Your task to perform on an android device: Go to CNN.com Image 0: 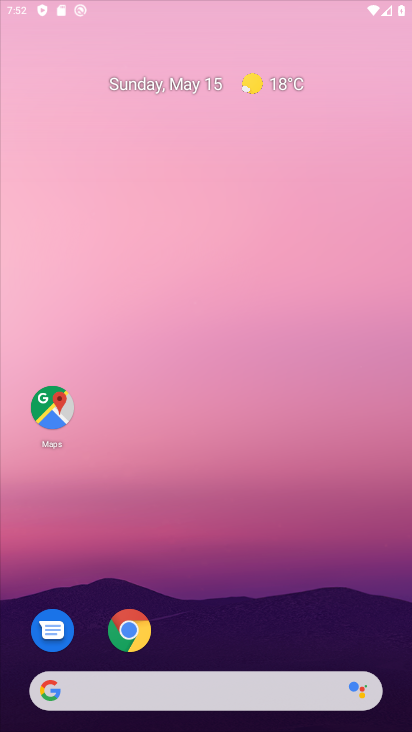
Step 0: drag from (183, 659) to (258, 206)
Your task to perform on an android device: Go to CNN.com Image 1: 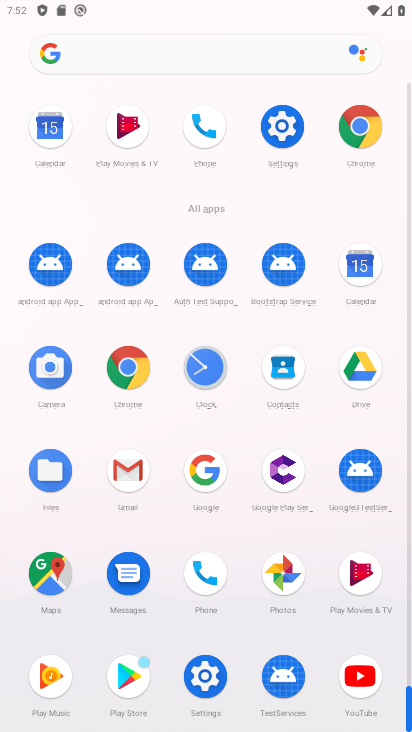
Step 1: click (184, 56)
Your task to perform on an android device: Go to CNN.com Image 2: 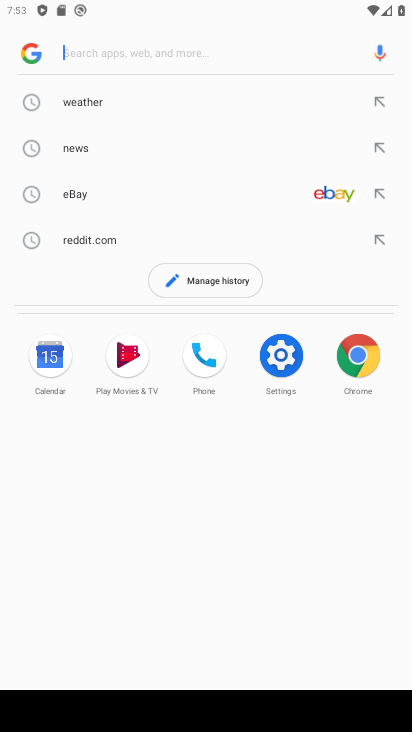
Step 2: type "cnn.com"
Your task to perform on an android device: Go to CNN.com Image 3: 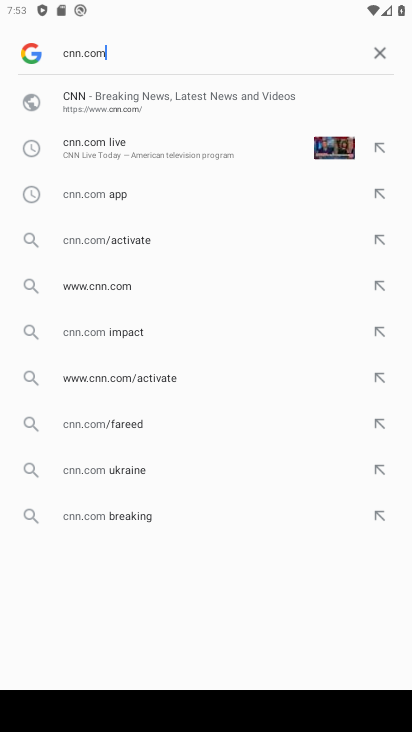
Step 3: click (121, 104)
Your task to perform on an android device: Go to CNN.com Image 4: 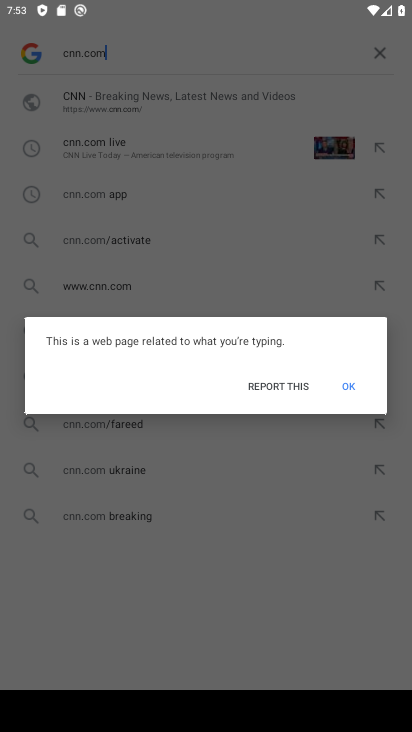
Step 4: click (342, 385)
Your task to perform on an android device: Go to CNN.com Image 5: 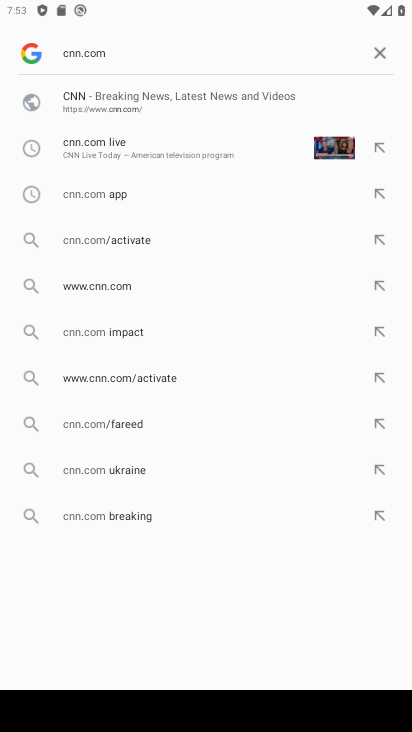
Step 5: click (133, 91)
Your task to perform on an android device: Go to CNN.com Image 6: 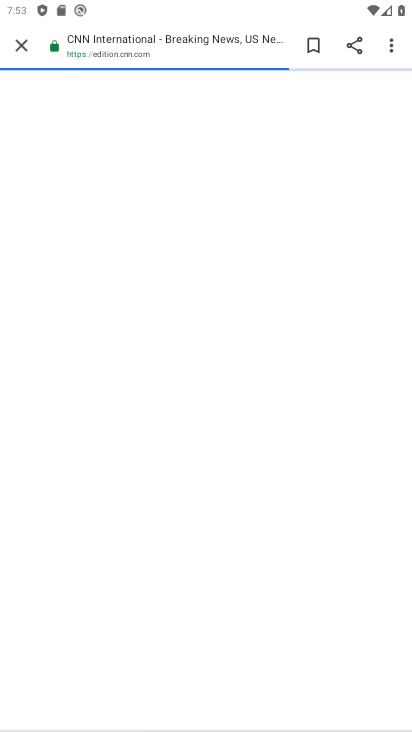
Step 6: drag from (190, 561) to (268, 222)
Your task to perform on an android device: Go to CNN.com Image 7: 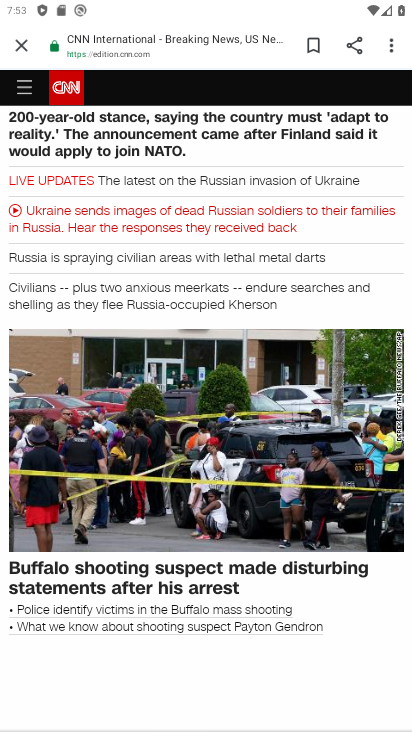
Step 7: drag from (281, 236) to (301, 617)
Your task to perform on an android device: Go to CNN.com Image 8: 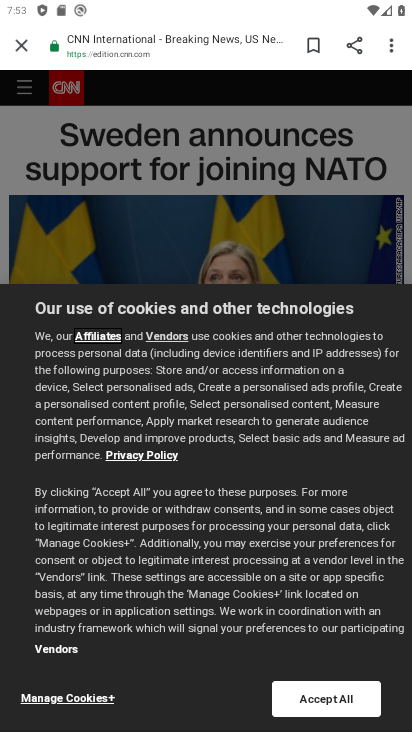
Step 8: click (392, 4)
Your task to perform on an android device: Go to CNN.com Image 9: 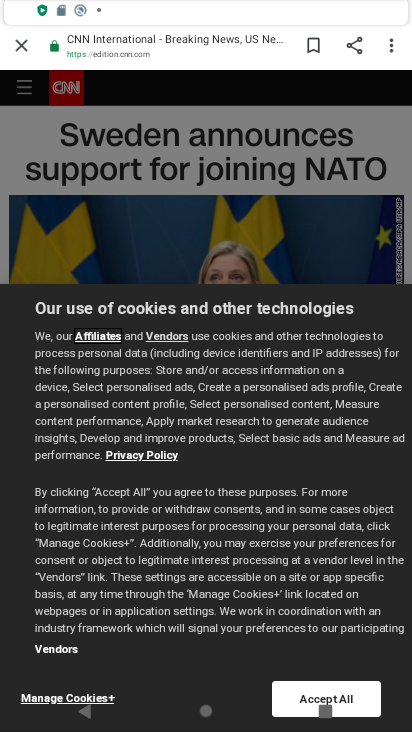
Step 9: task complete